Your task to perform on an android device: open app "NewsBreak: Local News & Alerts" Image 0: 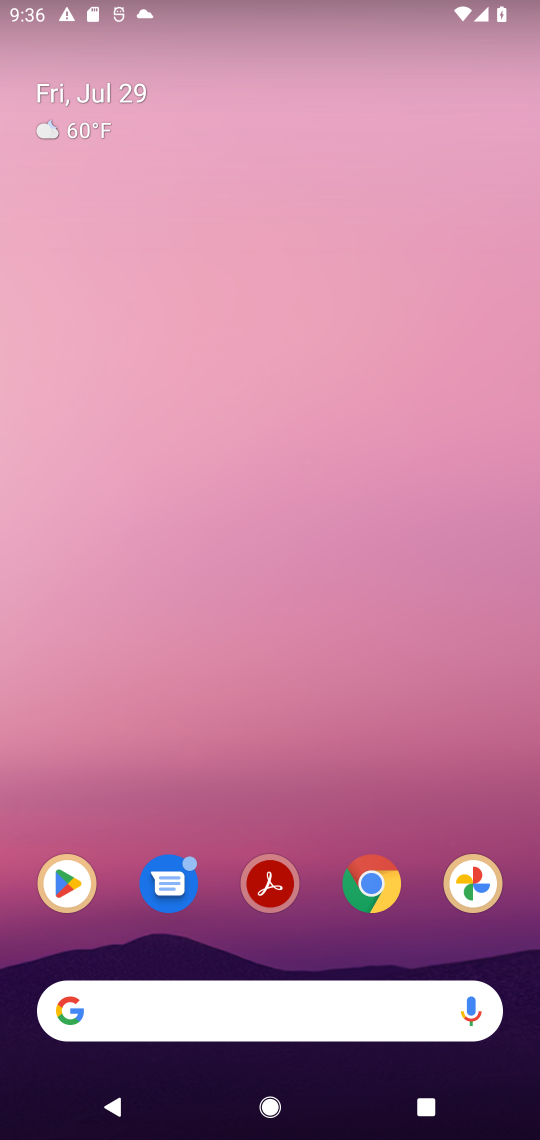
Step 0: click (66, 901)
Your task to perform on an android device: open app "NewsBreak: Local News & Alerts" Image 1: 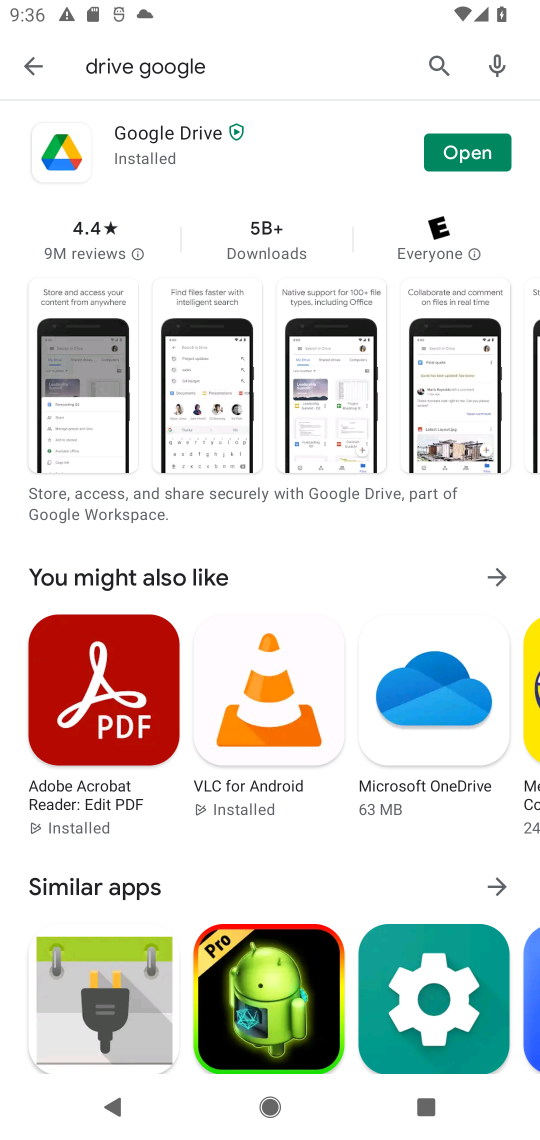
Step 1: click (229, 76)
Your task to perform on an android device: open app "NewsBreak: Local News & Alerts" Image 2: 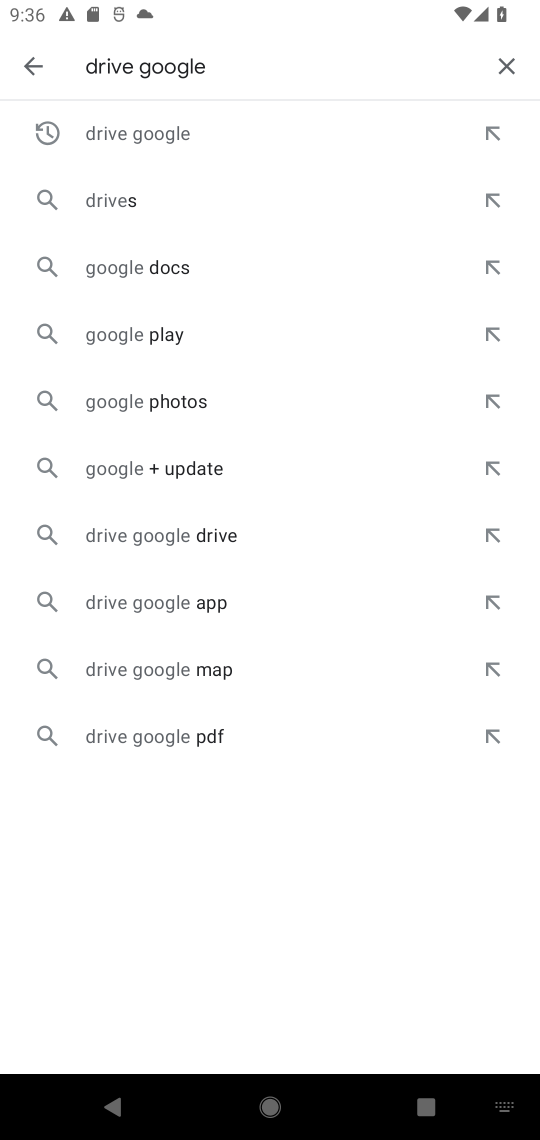
Step 2: click (502, 63)
Your task to perform on an android device: open app "NewsBreak: Local News & Alerts" Image 3: 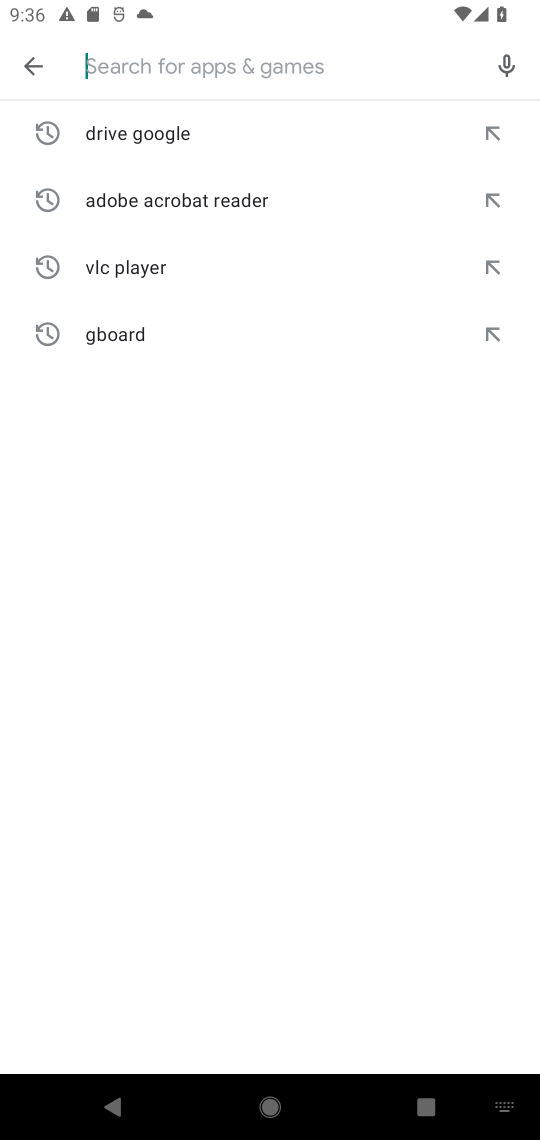
Step 3: type "NewsBreak"
Your task to perform on an android device: open app "NewsBreak: Local News & Alerts" Image 4: 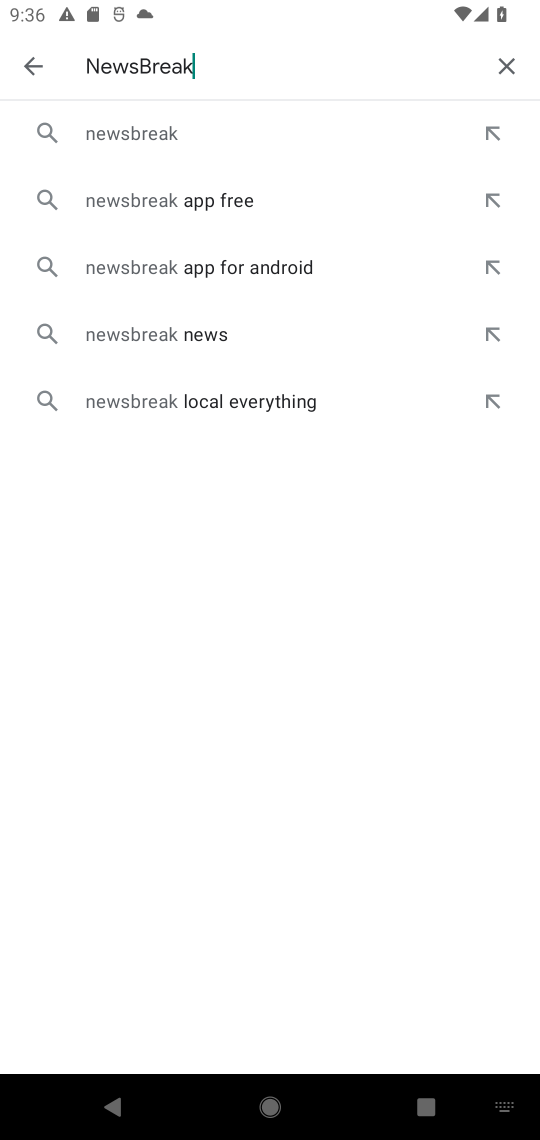
Step 4: click (152, 141)
Your task to perform on an android device: open app "NewsBreak: Local News & Alerts" Image 5: 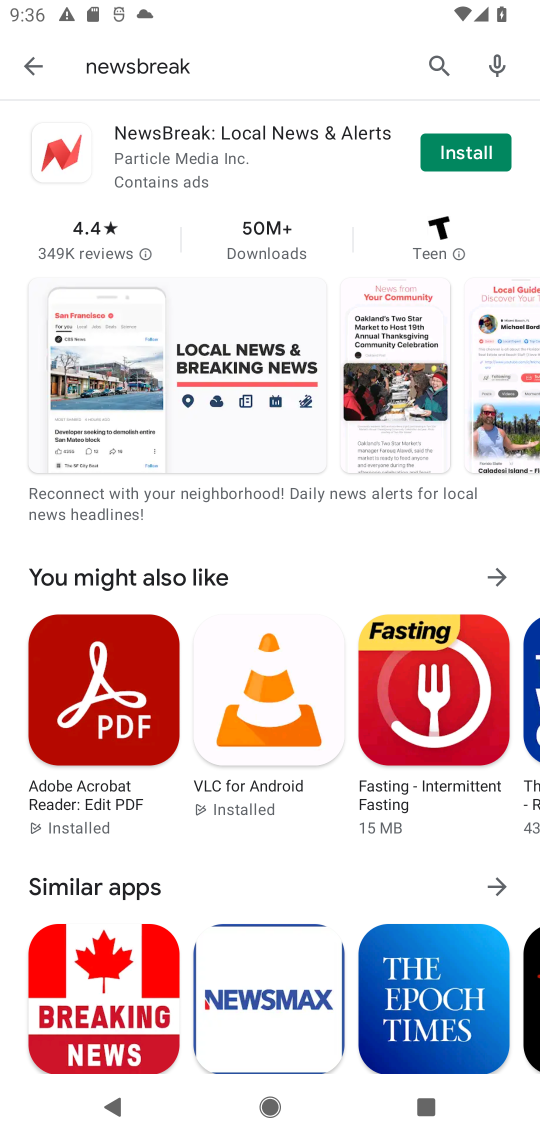
Step 5: task complete